Your task to perform on an android device: Search for pizza restaurants on Maps Image 0: 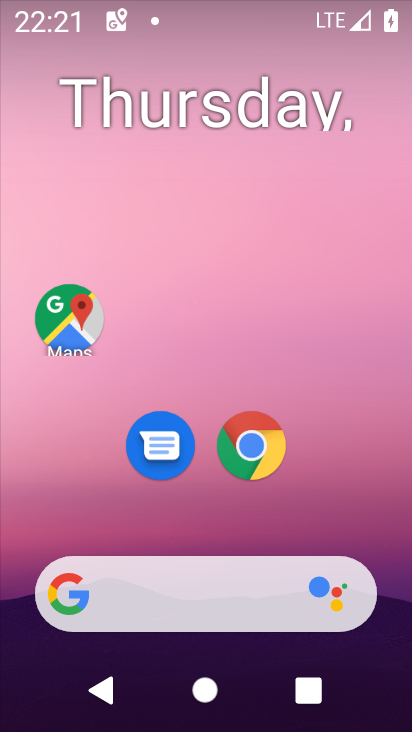
Step 0: drag from (215, 549) to (224, 234)
Your task to perform on an android device: Search for pizza restaurants on Maps Image 1: 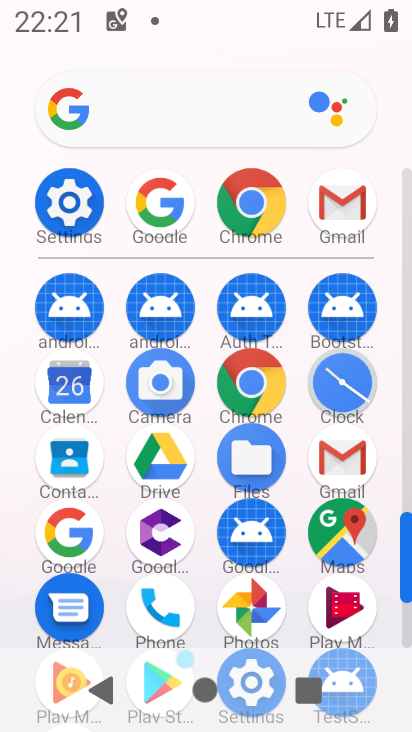
Step 1: drag from (190, 273) to (229, 107)
Your task to perform on an android device: Search for pizza restaurants on Maps Image 2: 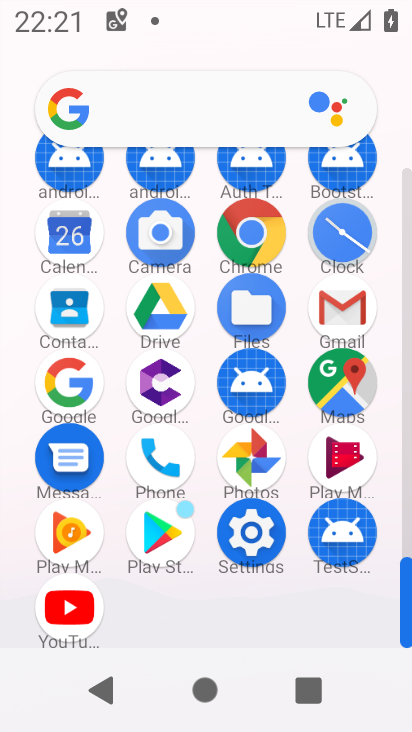
Step 2: click (348, 395)
Your task to perform on an android device: Search for pizza restaurants on Maps Image 3: 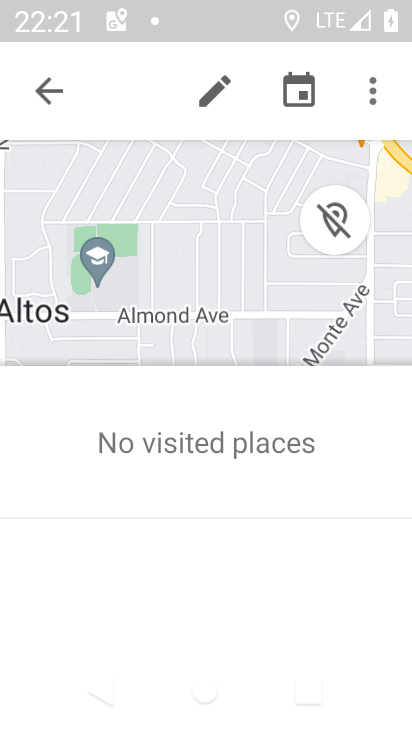
Step 3: press back button
Your task to perform on an android device: Search for pizza restaurants on Maps Image 4: 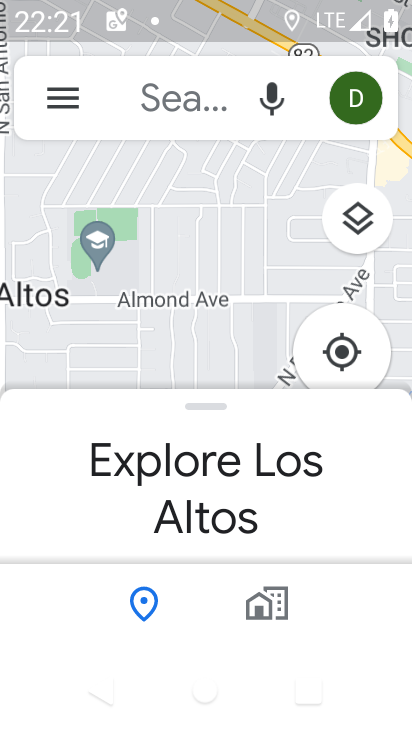
Step 4: click (164, 127)
Your task to perform on an android device: Search for pizza restaurants on Maps Image 5: 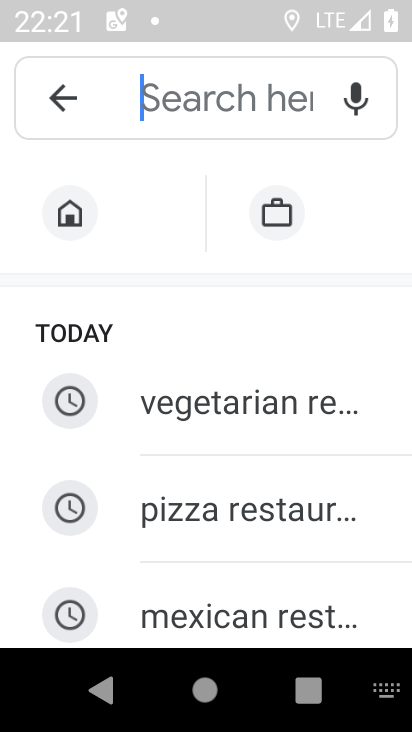
Step 5: click (283, 509)
Your task to perform on an android device: Search for pizza restaurants on Maps Image 6: 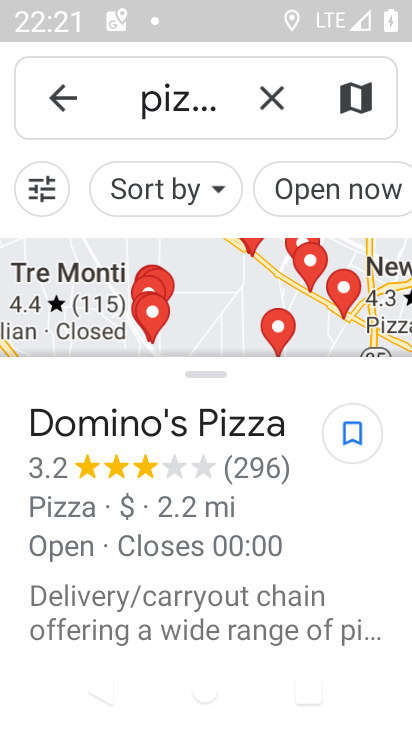
Step 6: task complete